Your task to perform on an android device: Go to Yahoo.com Image 0: 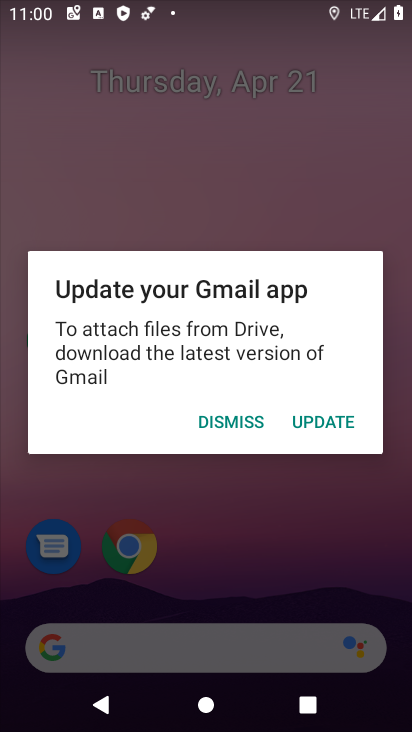
Step 0: press home button
Your task to perform on an android device: Go to Yahoo.com Image 1: 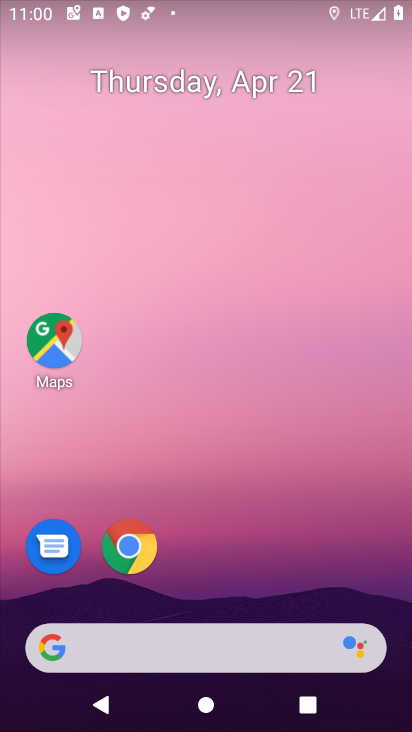
Step 1: click (132, 548)
Your task to perform on an android device: Go to Yahoo.com Image 2: 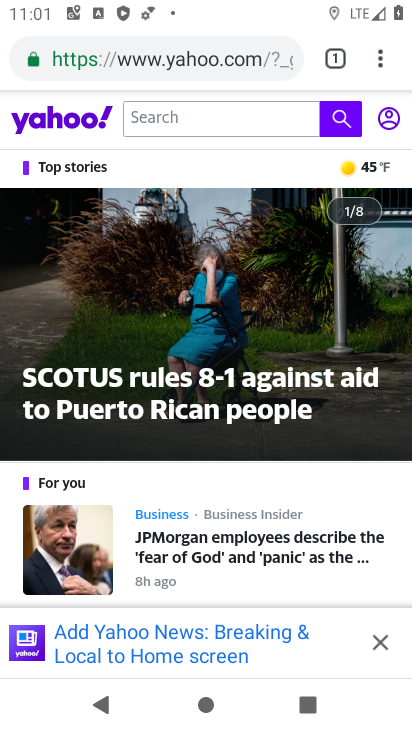
Step 2: task complete